Your task to perform on an android device: Open Google Maps and go to "Timeline" Image 0: 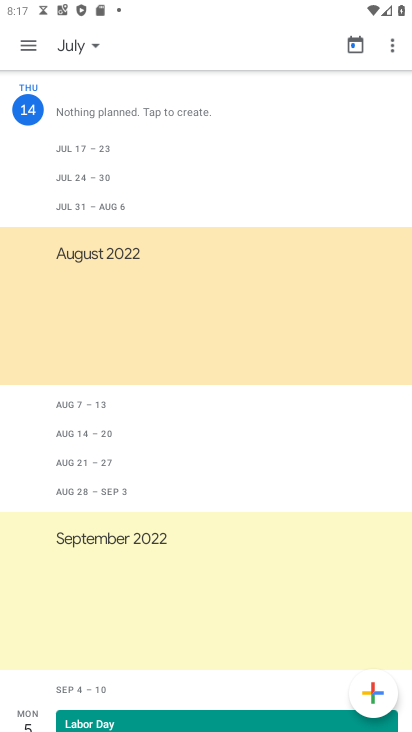
Step 0: press home button
Your task to perform on an android device: Open Google Maps and go to "Timeline" Image 1: 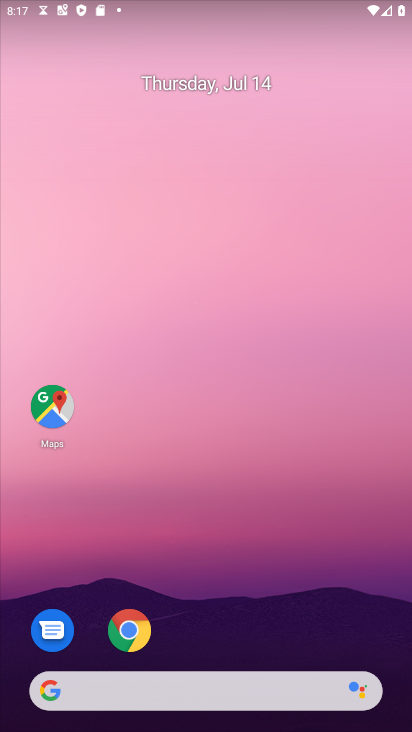
Step 1: click (58, 393)
Your task to perform on an android device: Open Google Maps and go to "Timeline" Image 2: 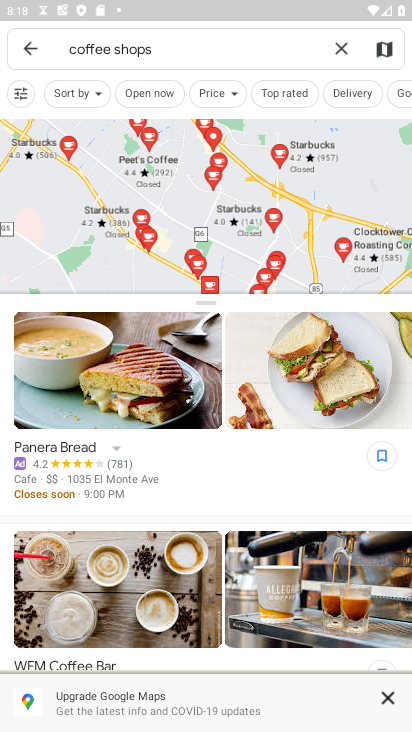
Step 2: click (22, 35)
Your task to perform on an android device: Open Google Maps and go to "Timeline" Image 3: 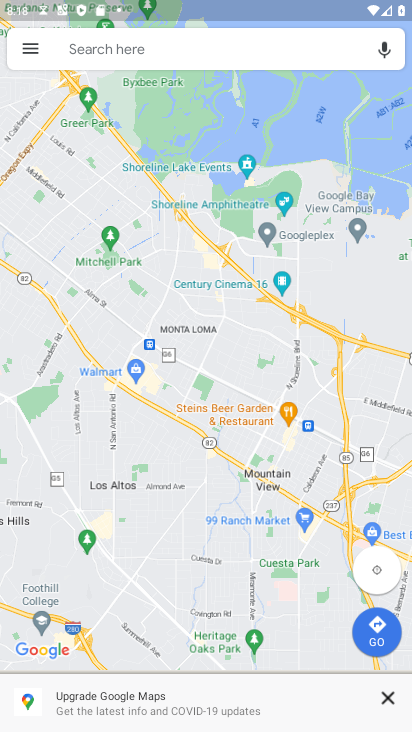
Step 3: click (29, 46)
Your task to perform on an android device: Open Google Maps and go to "Timeline" Image 4: 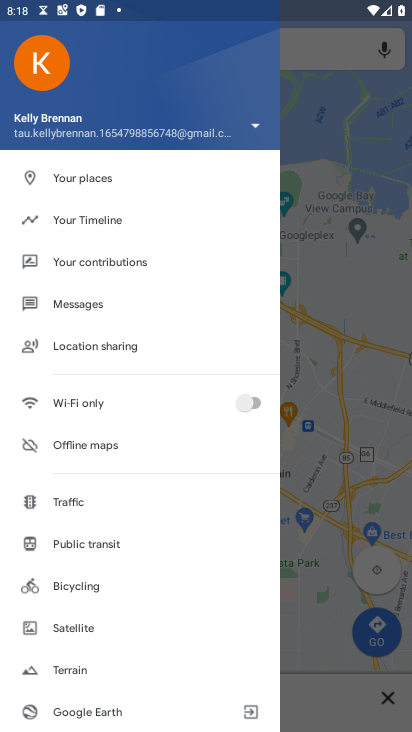
Step 4: click (117, 219)
Your task to perform on an android device: Open Google Maps and go to "Timeline" Image 5: 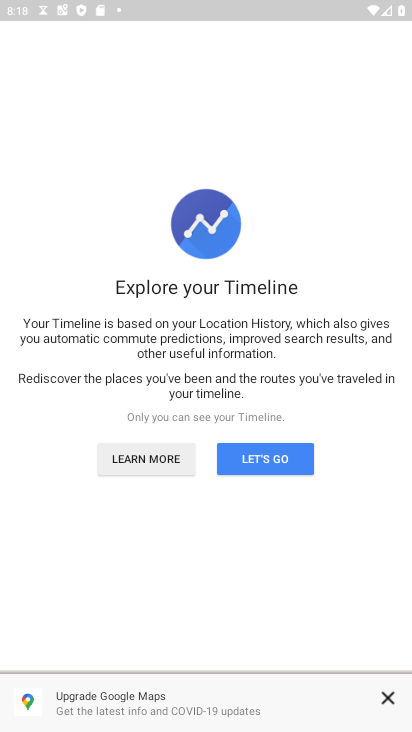
Step 5: click (256, 468)
Your task to perform on an android device: Open Google Maps and go to "Timeline" Image 6: 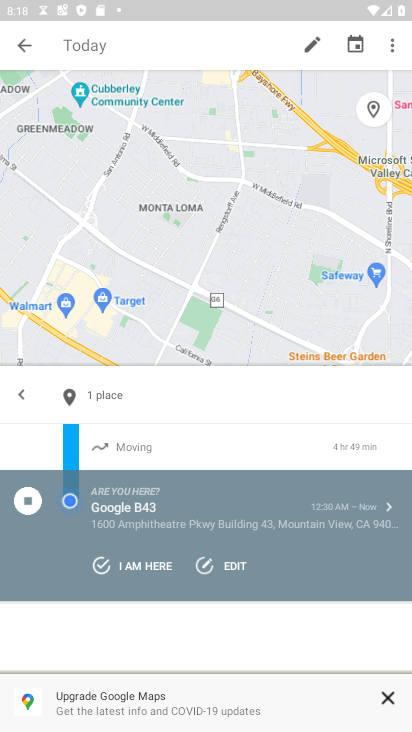
Step 6: task complete